Your task to perform on an android device: change the clock display to analog Image 0: 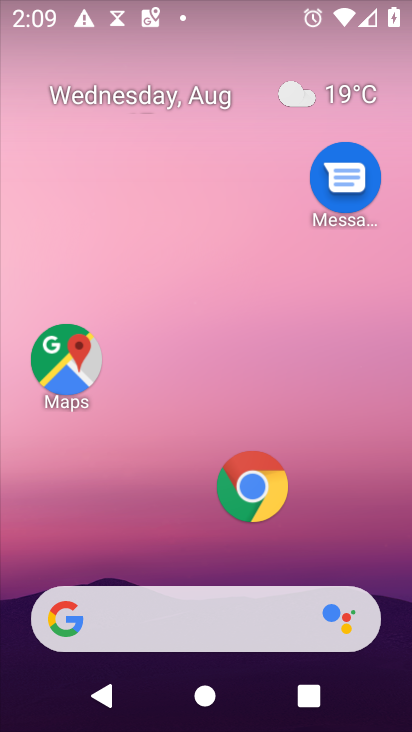
Step 0: drag from (156, 572) to (254, 37)
Your task to perform on an android device: change the clock display to analog Image 1: 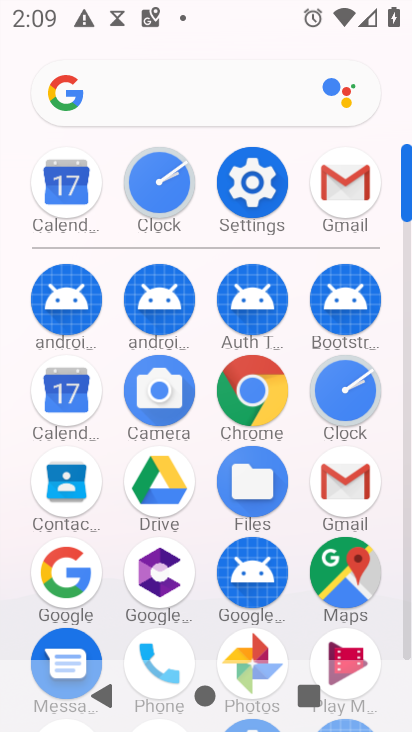
Step 1: click (157, 194)
Your task to perform on an android device: change the clock display to analog Image 2: 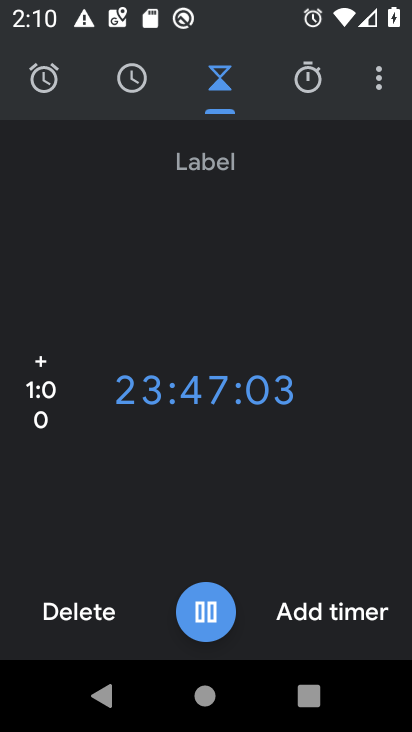
Step 2: click (386, 75)
Your task to perform on an android device: change the clock display to analog Image 3: 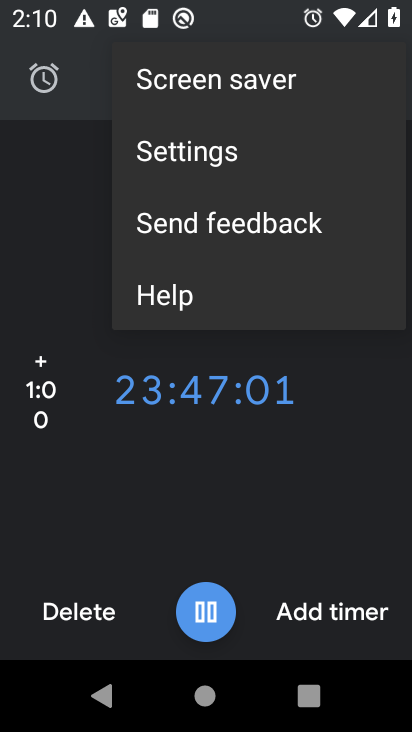
Step 3: click (178, 170)
Your task to perform on an android device: change the clock display to analog Image 4: 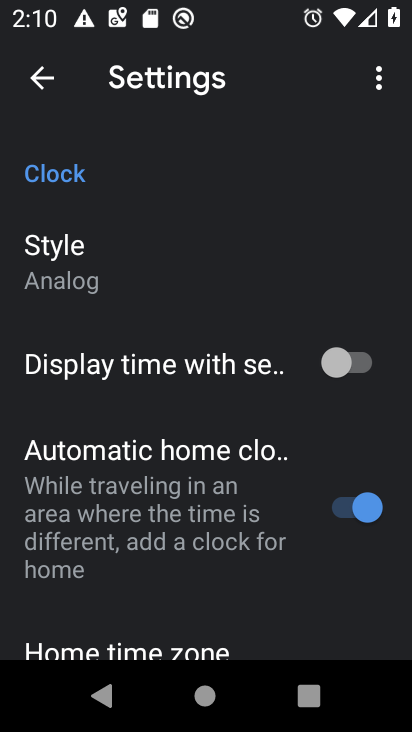
Step 4: click (112, 259)
Your task to perform on an android device: change the clock display to analog Image 5: 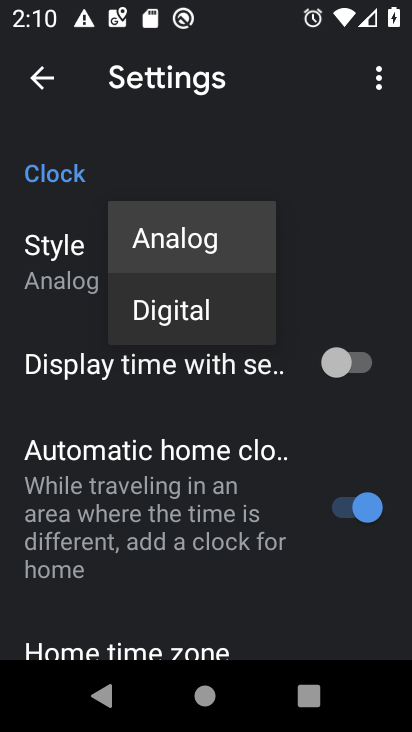
Step 5: click (171, 235)
Your task to perform on an android device: change the clock display to analog Image 6: 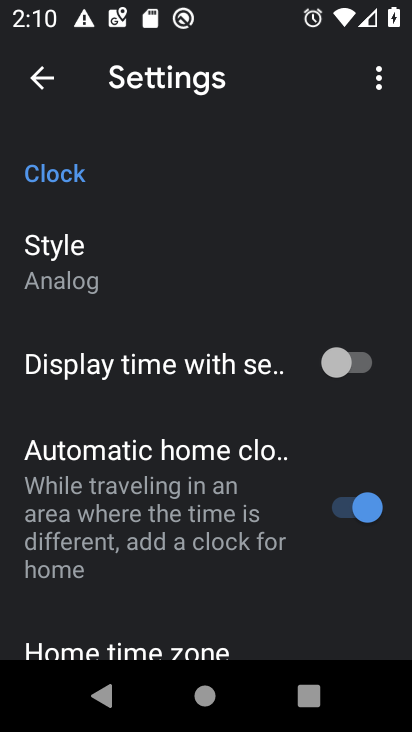
Step 6: task complete